Your task to perform on an android device: remove spam from my inbox in the gmail app Image 0: 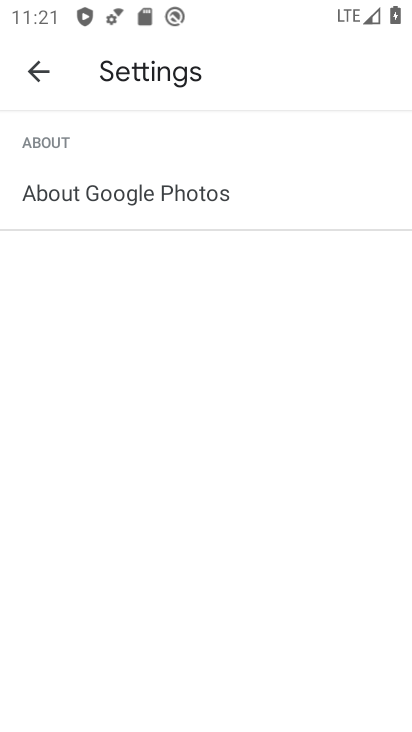
Step 0: press home button
Your task to perform on an android device: remove spam from my inbox in the gmail app Image 1: 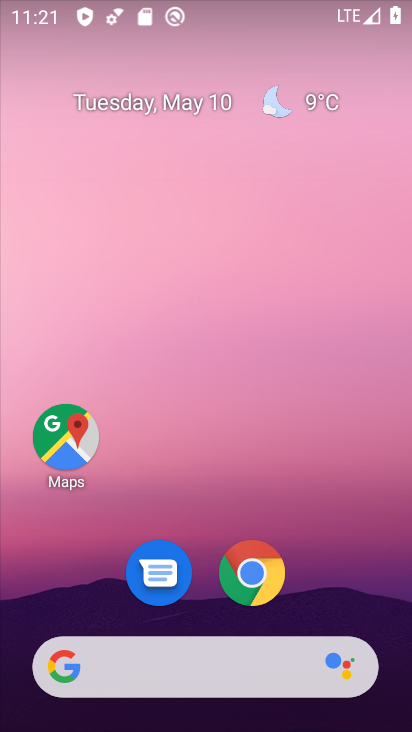
Step 1: drag from (148, 675) to (283, 209)
Your task to perform on an android device: remove spam from my inbox in the gmail app Image 2: 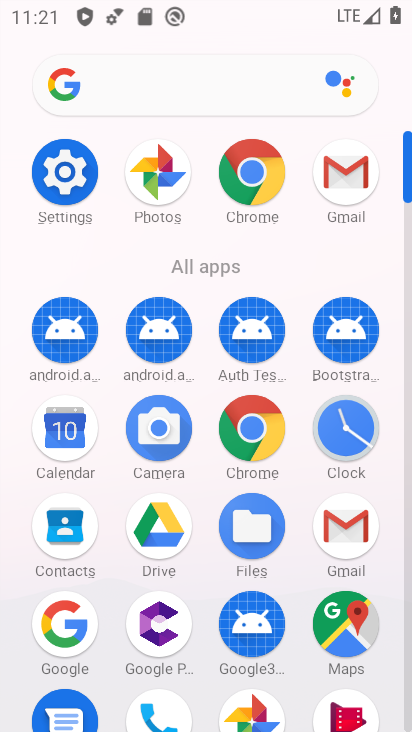
Step 2: click (348, 178)
Your task to perform on an android device: remove spam from my inbox in the gmail app Image 3: 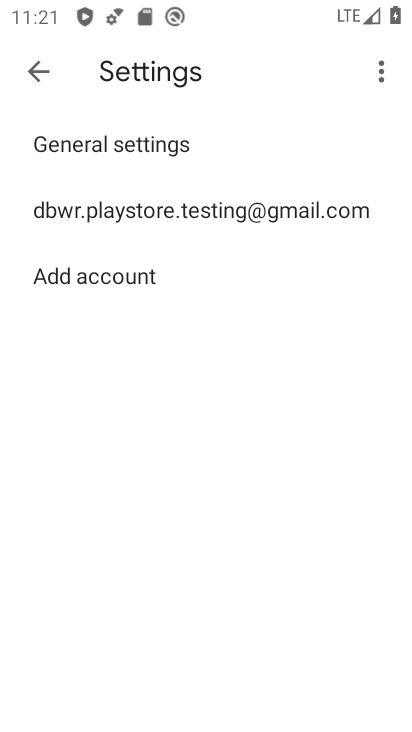
Step 3: click (39, 72)
Your task to perform on an android device: remove spam from my inbox in the gmail app Image 4: 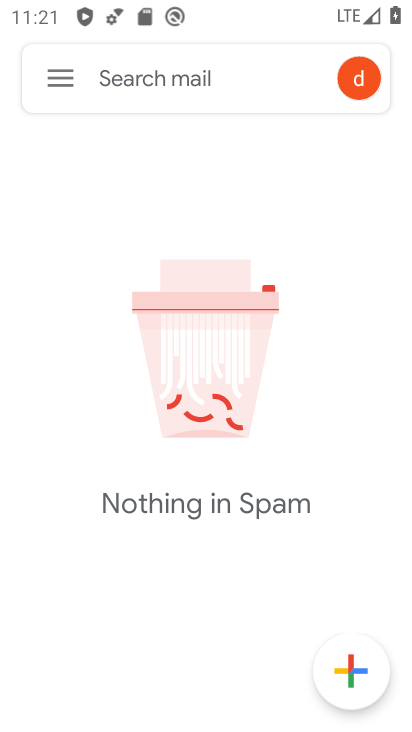
Step 4: click (54, 79)
Your task to perform on an android device: remove spam from my inbox in the gmail app Image 5: 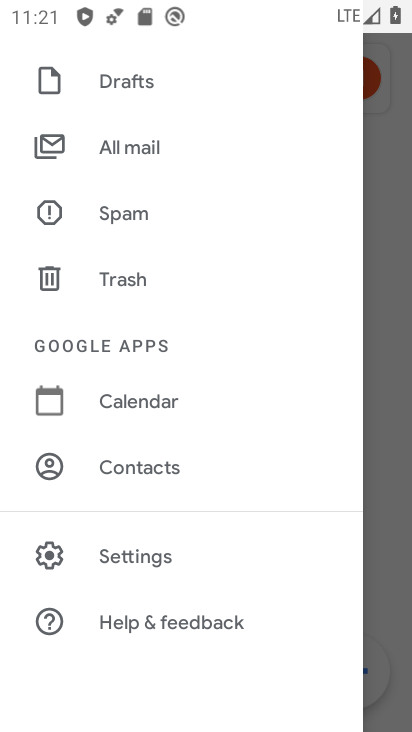
Step 5: click (135, 216)
Your task to perform on an android device: remove spam from my inbox in the gmail app Image 6: 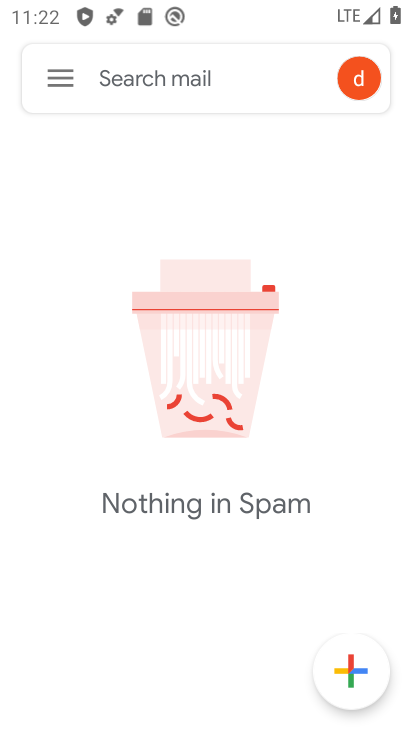
Step 6: task complete